Your task to perform on an android device: open device folders in google photos Image 0: 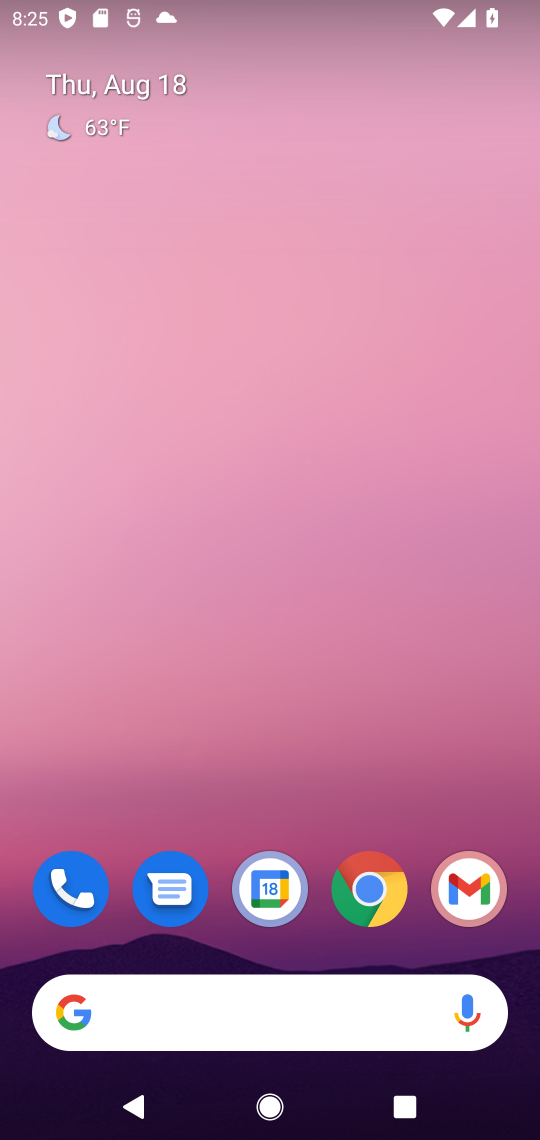
Step 0: press home button
Your task to perform on an android device: open device folders in google photos Image 1: 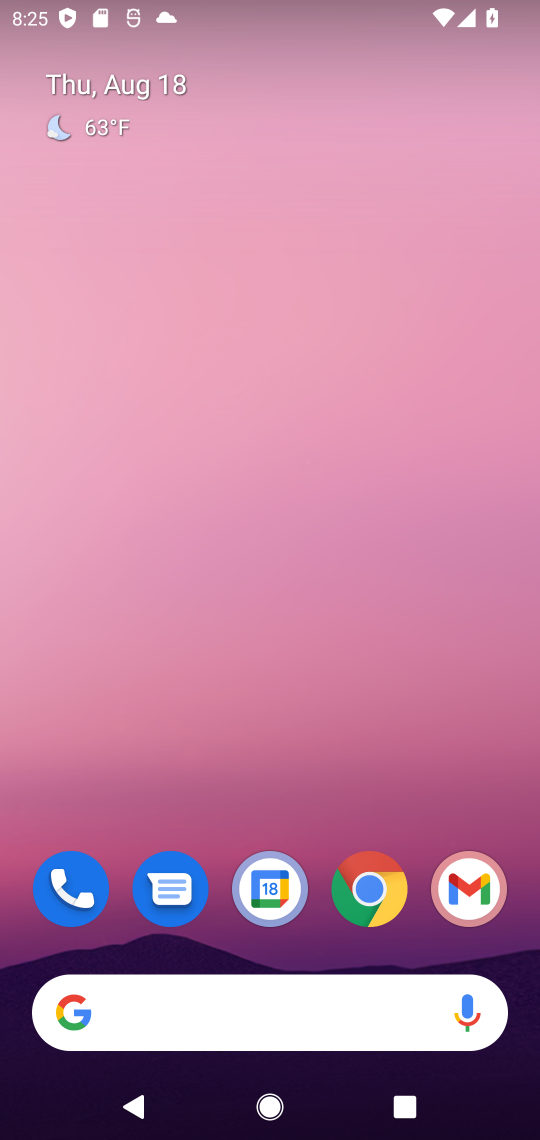
Step 1: drag from (315, 937) to (217, 14)
Your task to perform on an android device: open device folders in google photos Image 2: 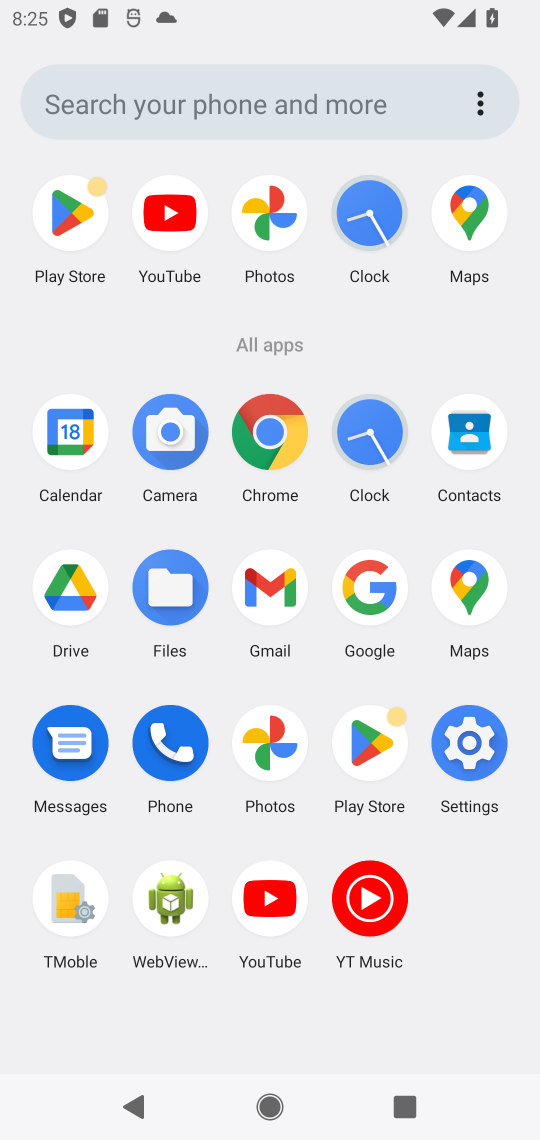
Step 2: click (271, 211)
Your task to perform on an android device: open device folders in google photos Image 3: 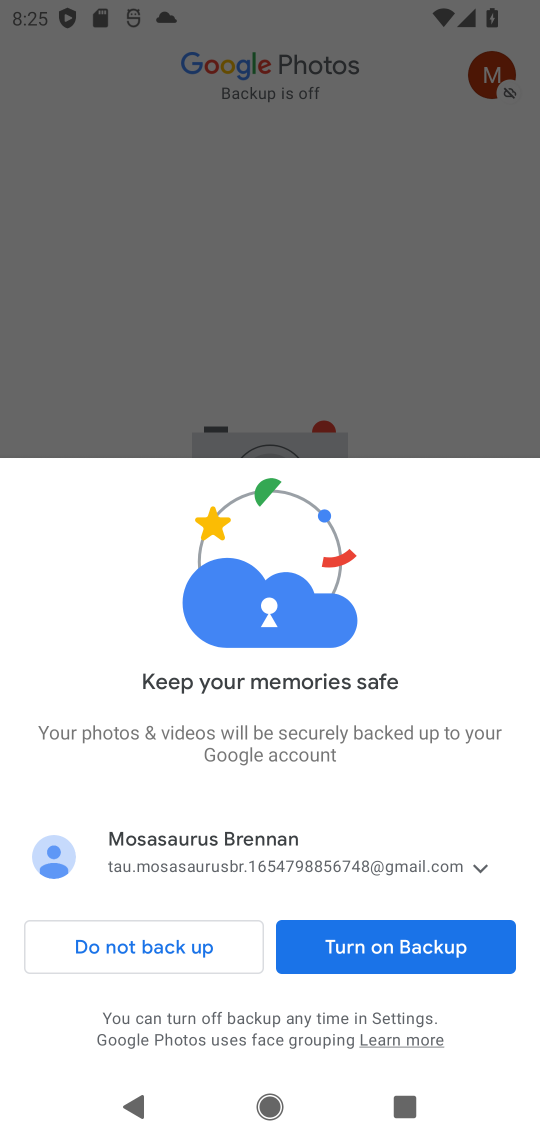
Step 3: click (153, 949)
Your task to perform on an android device: open device folders in google photos Image 4: 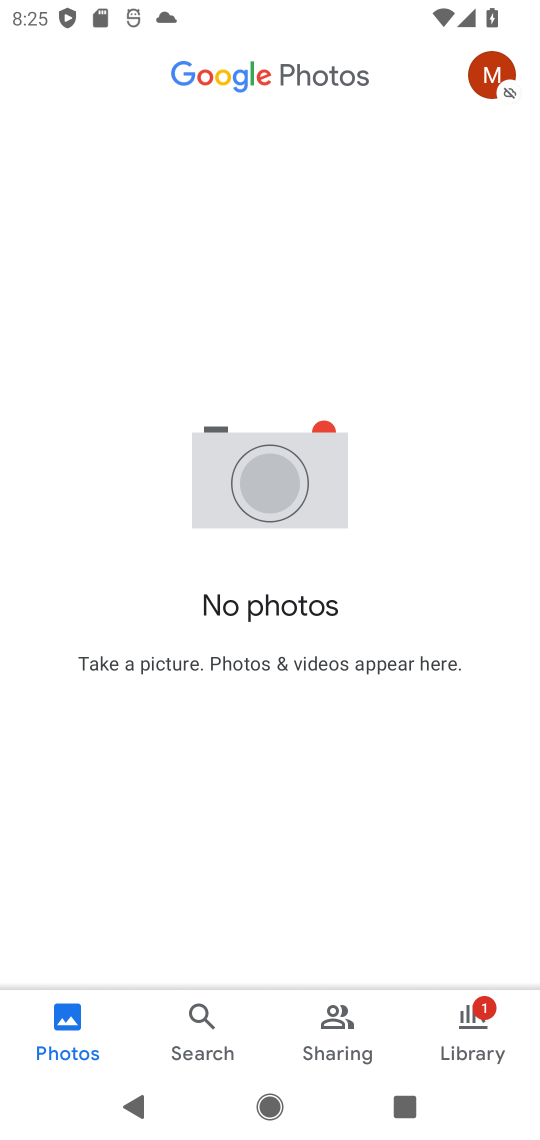
Step 4: click (493, 80)
Your task to perform on an android device: open device folders in google photos Image 5: 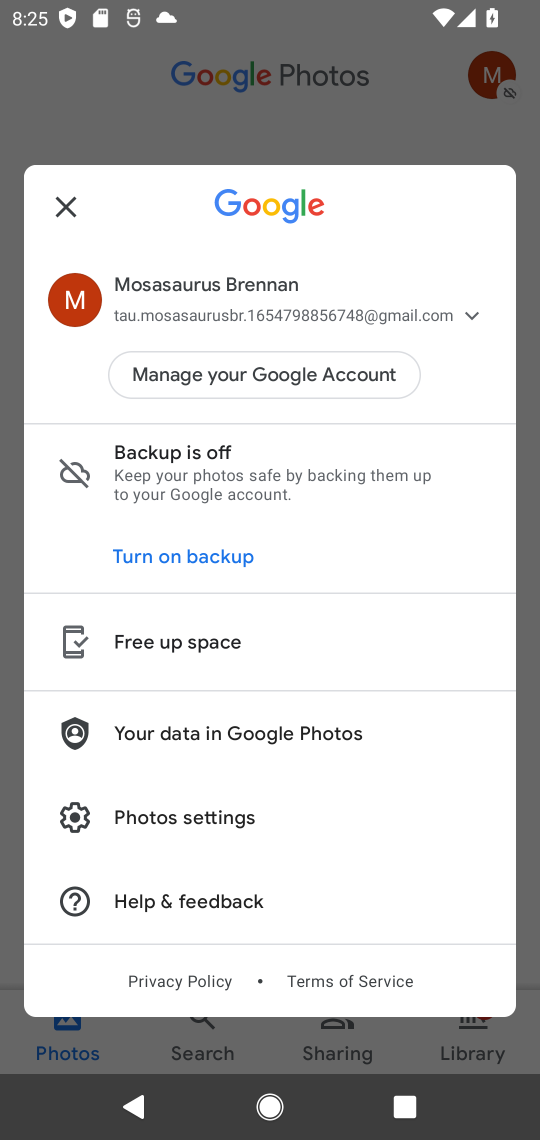
Step 5: task complete